Your task to perform on an android device: Go to Amazon Image 0: 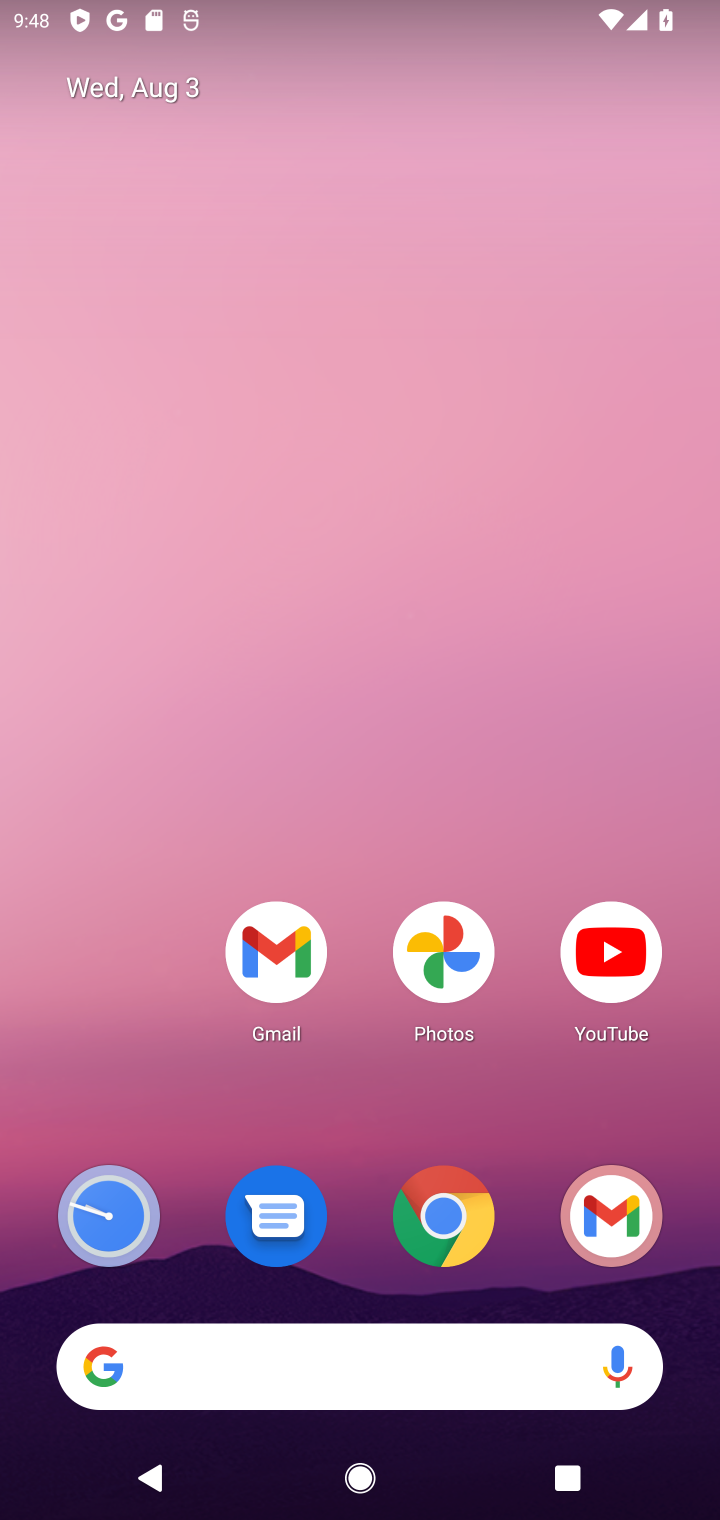
Step 0: click (475, 1198)
Your task to perform on an android device: Go to Amazon Image 1: 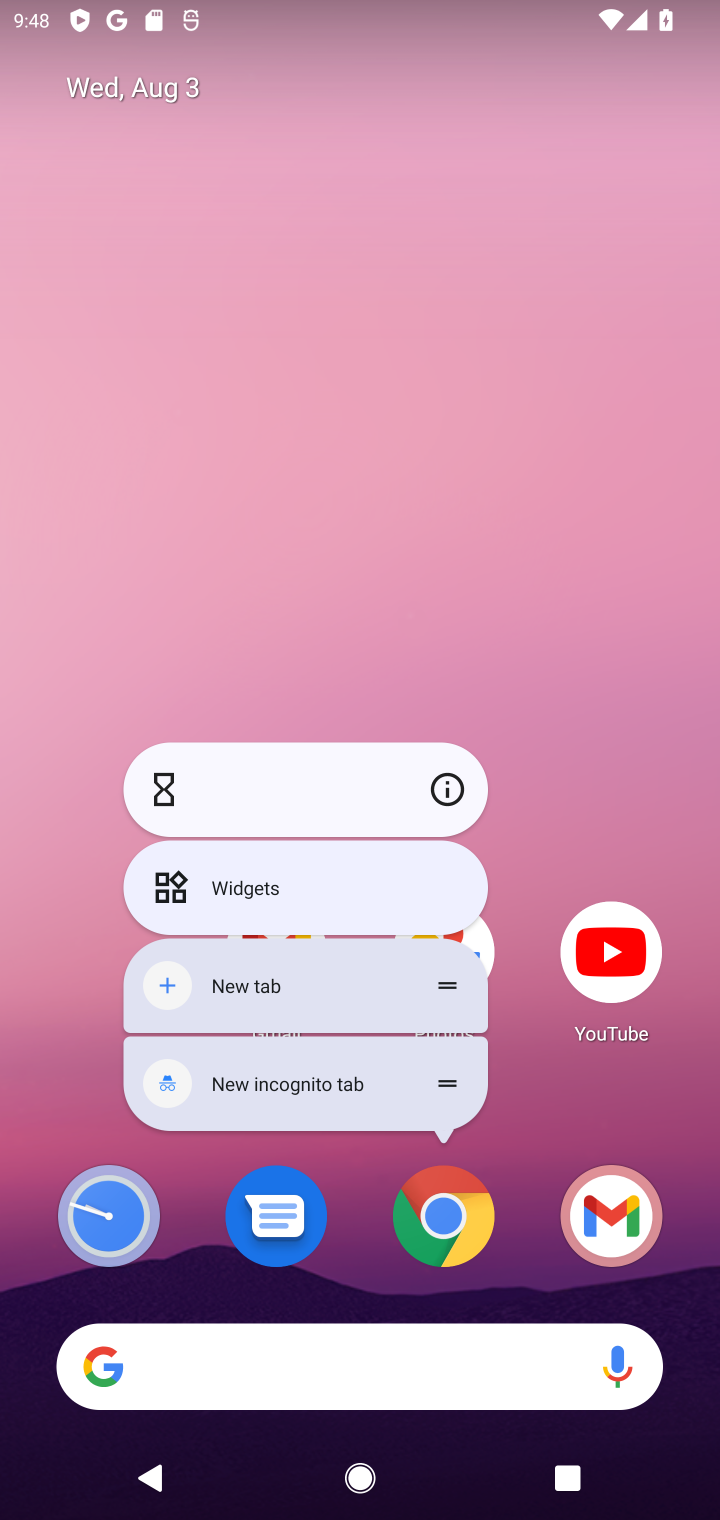
Step 1: click (446, 1213)
Your task to perform on an android device: Go to Amazon Image 2: 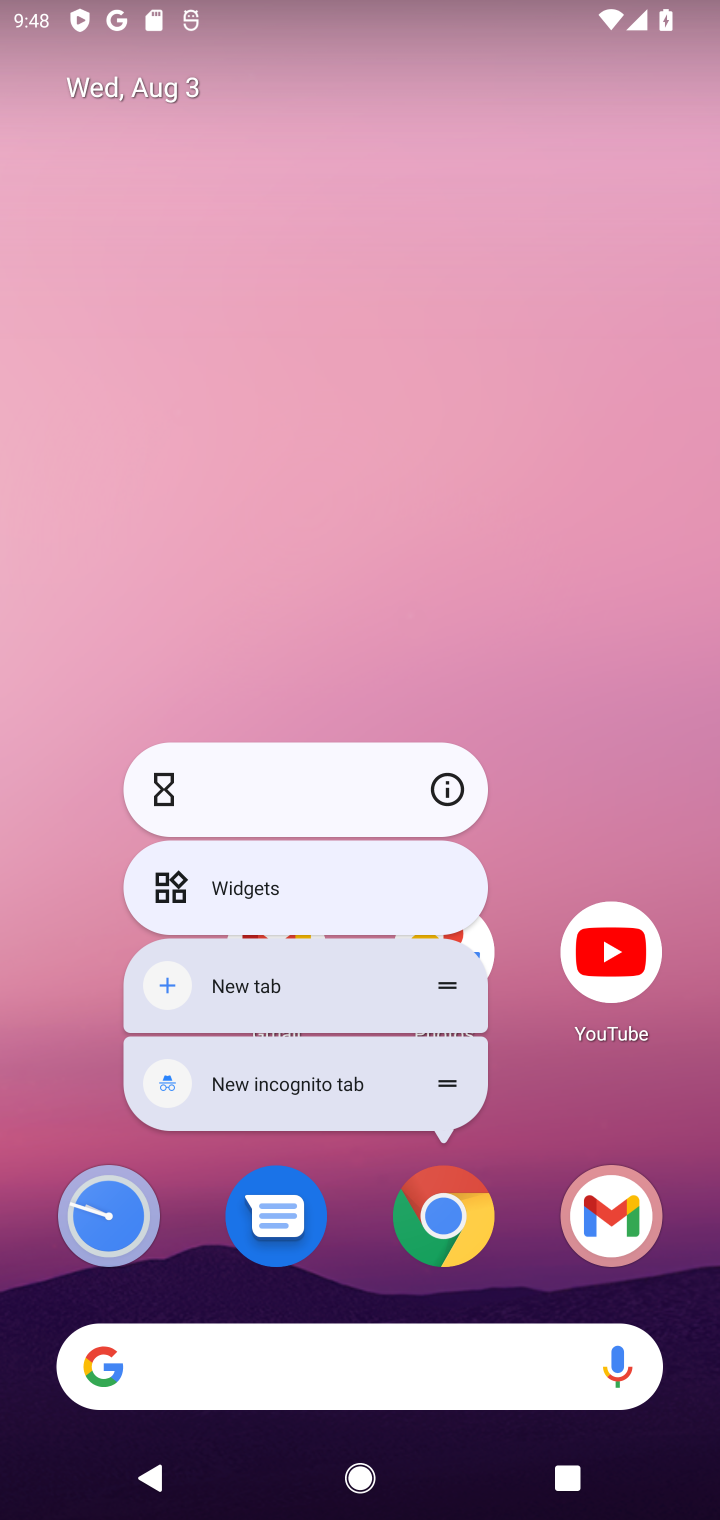
Step 2: click (457, 1221)
Your task to perform on an android device: Go to Amazon Image 3: 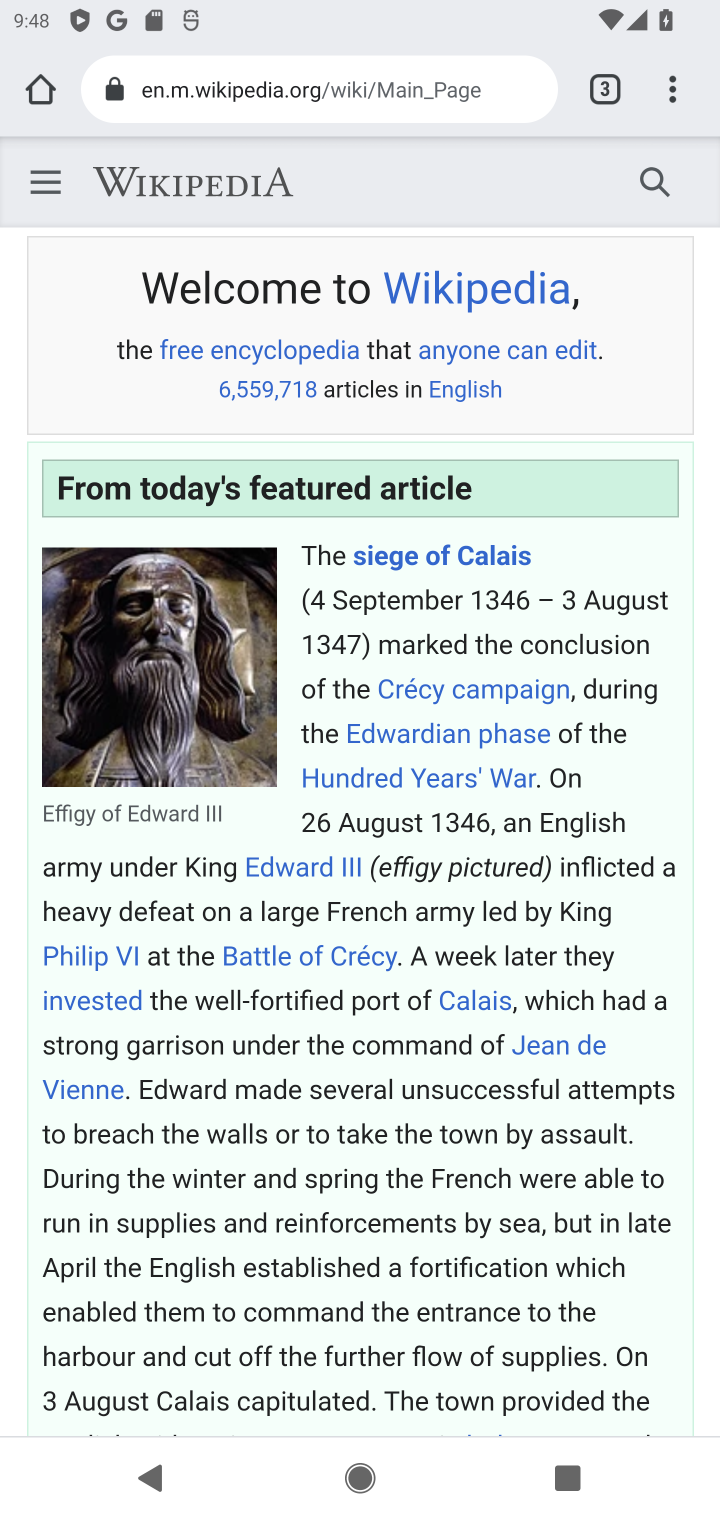
Step 3: click (609, 81)
Your task to perform on an android device: Go to Amazon Image 4: 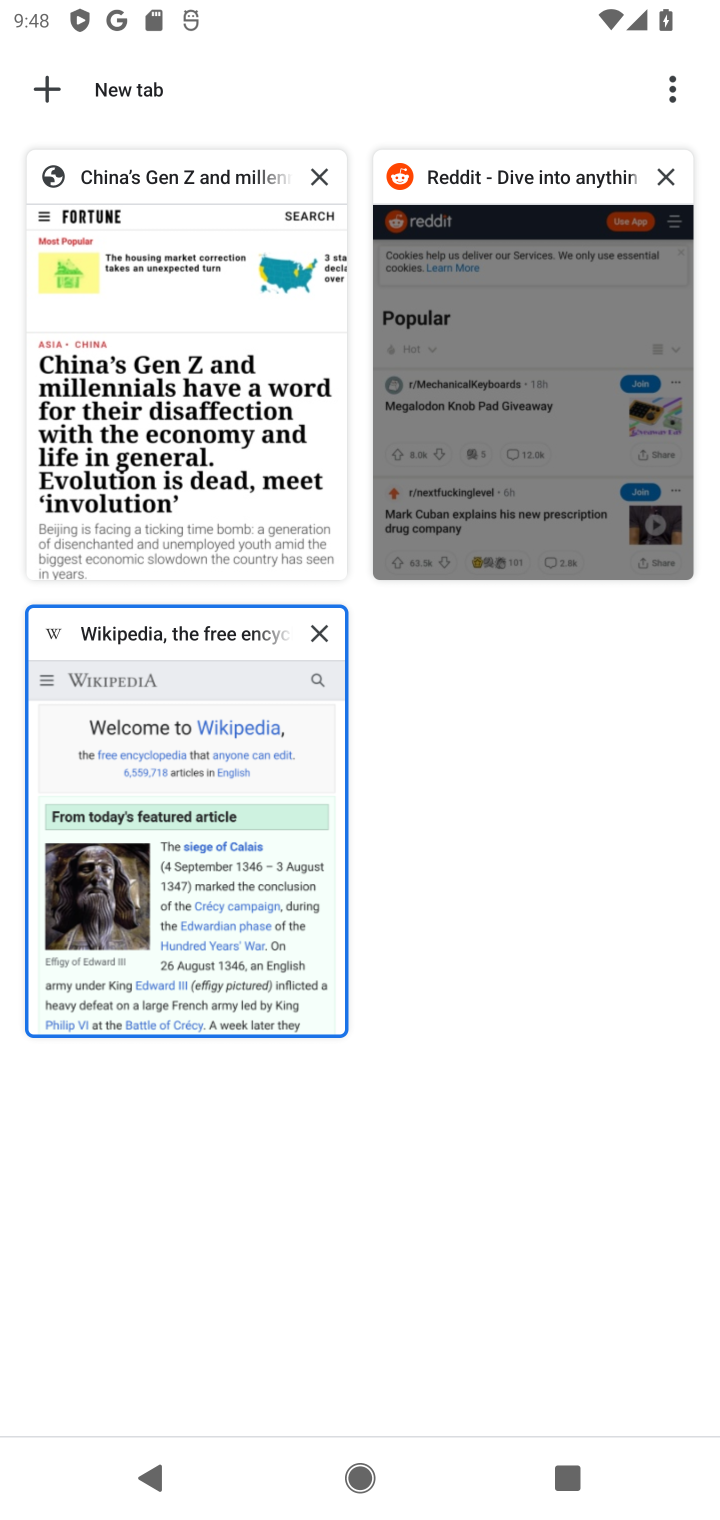
Step 4: click (41, 93)
Your task to perform on an android device: Go to Amazon Image 5: 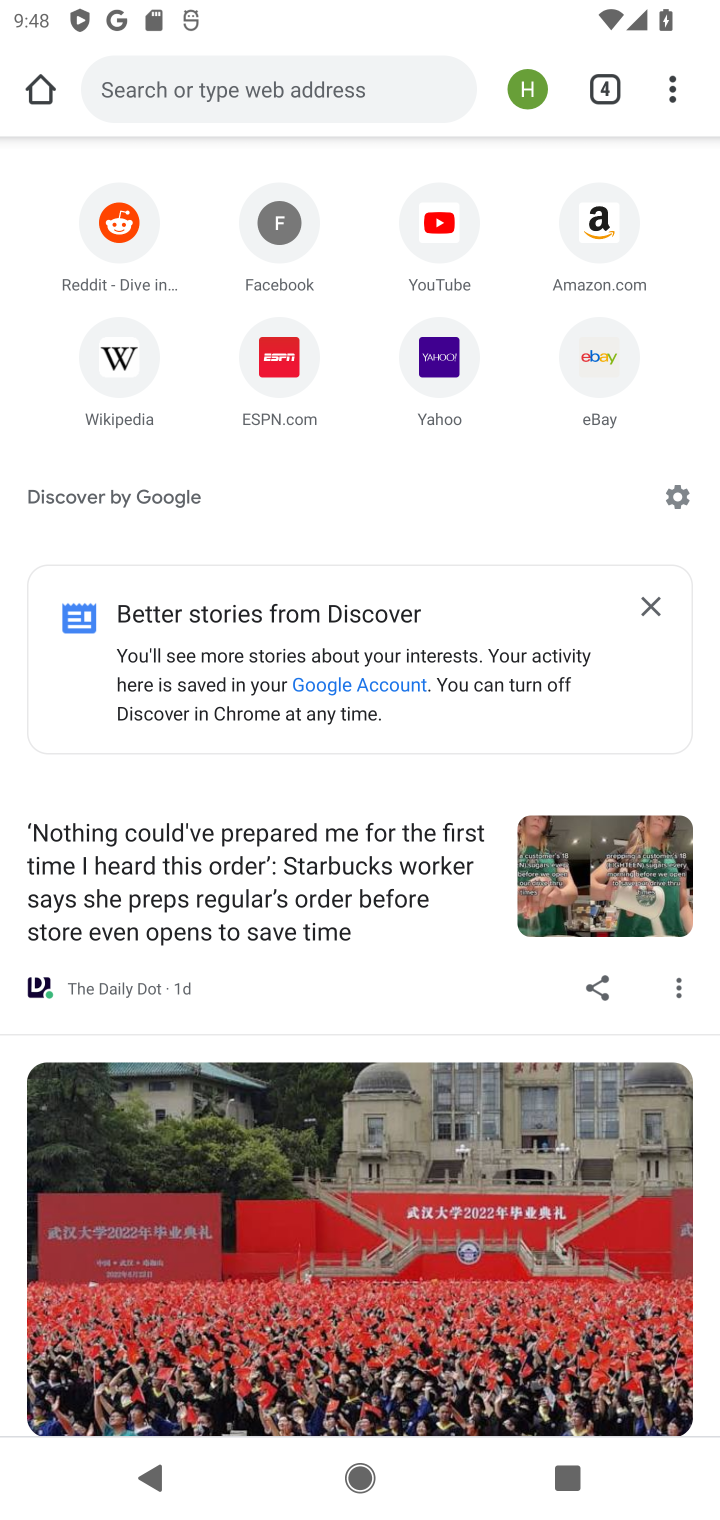
Step 5: click (590, 216)
Your task to perform on an android device: Go to Amazon Image 6: 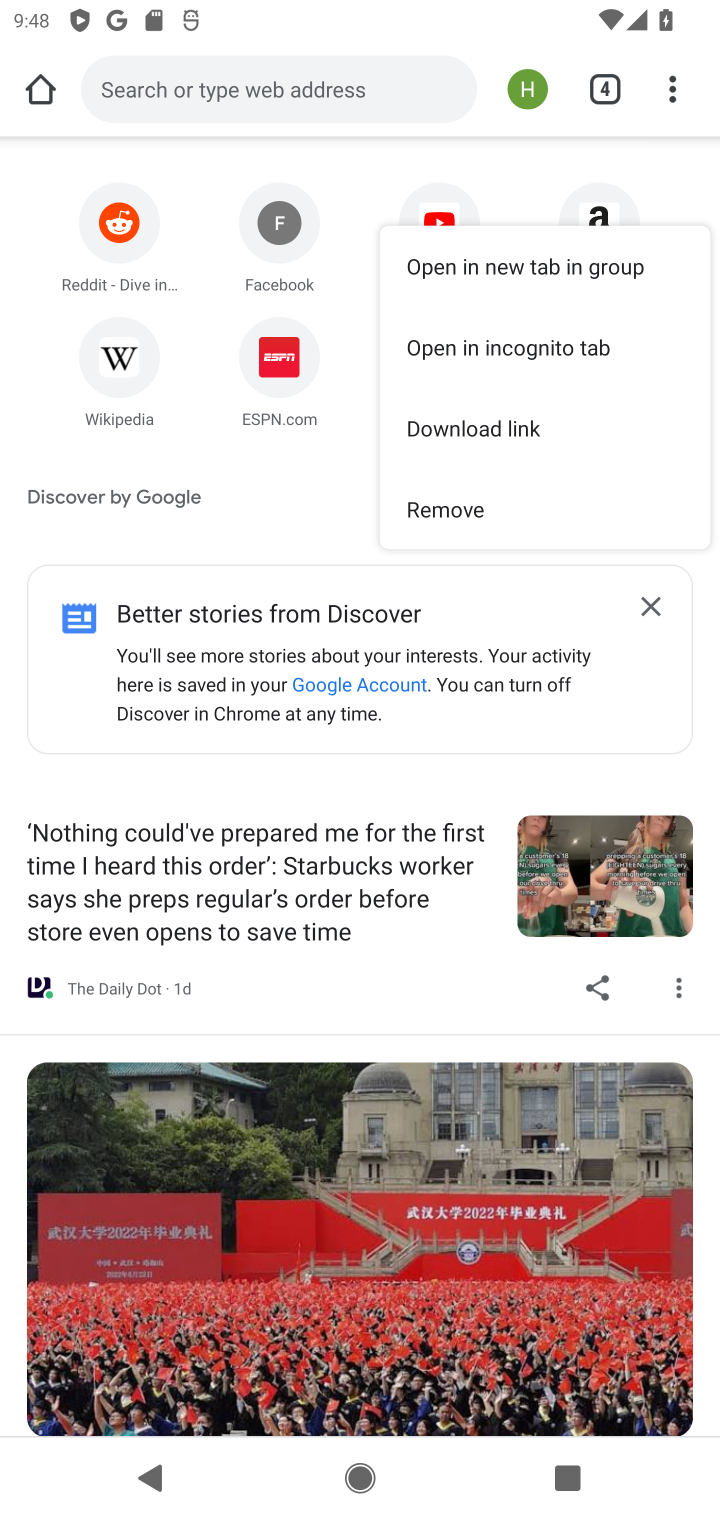
Step 6: click (609, 187)
Your task to perform on an android device: Go to Amazon Image 7: 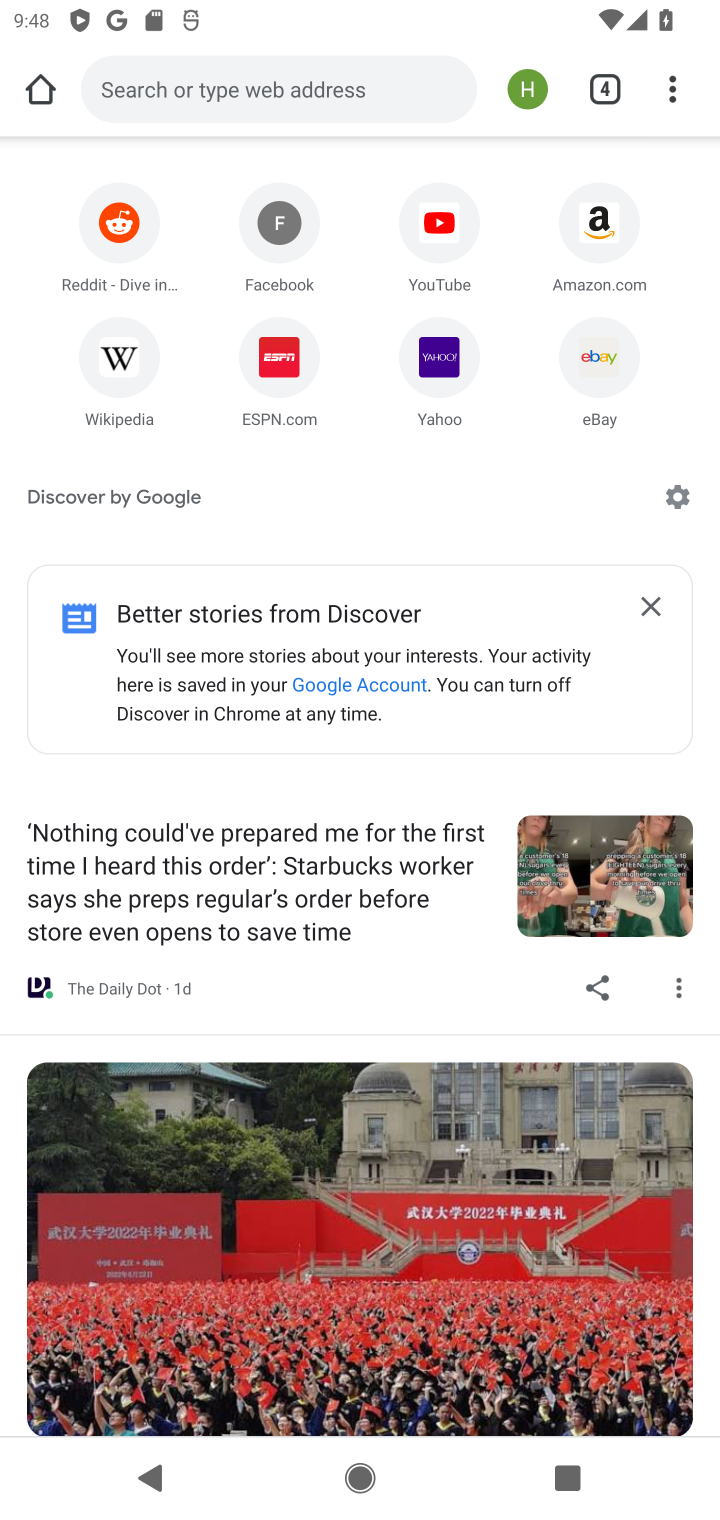
Step 7: click (613, 225)
Your task to perform on an android device: Go to Amazon Image 8: 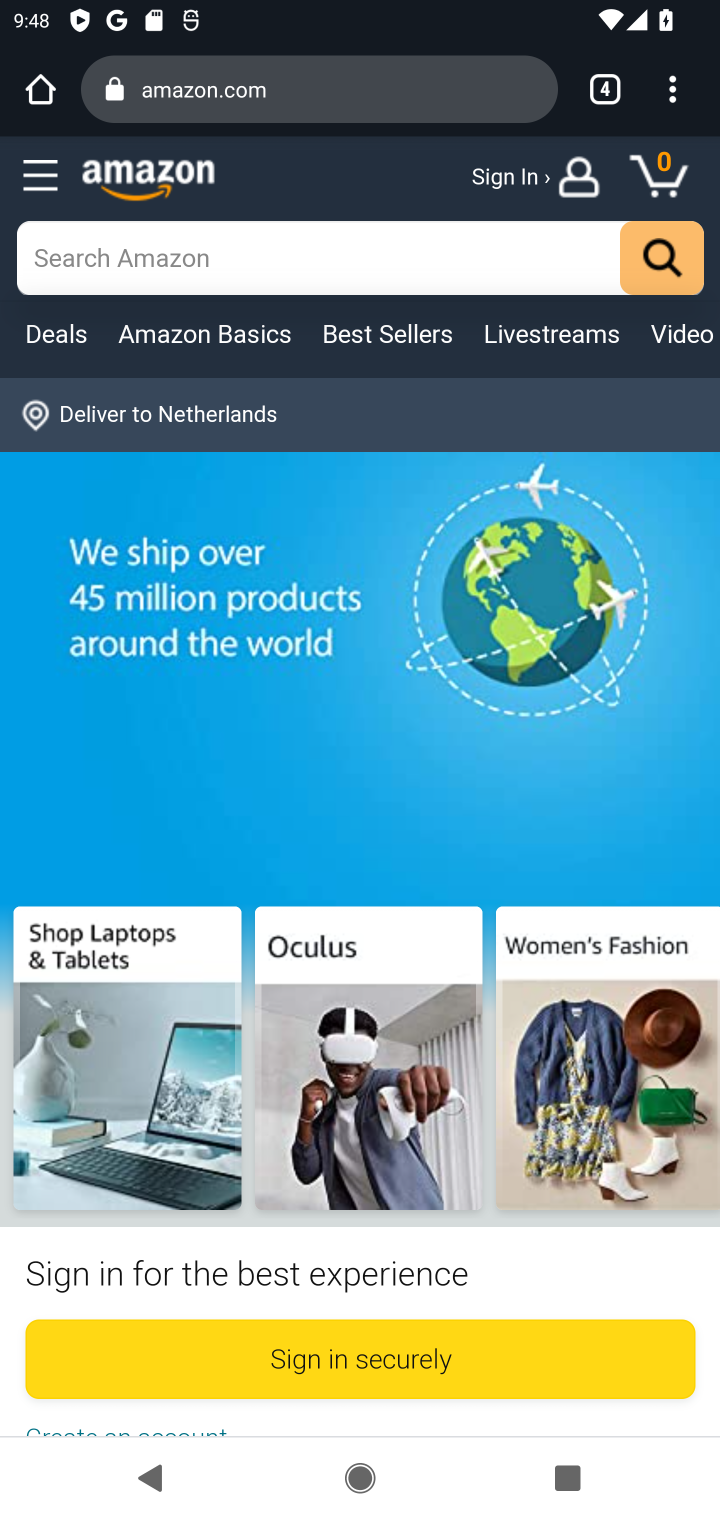
Step 8: task complete